Your task to perform on an android device: Open Maps and search for coffee Image 0: 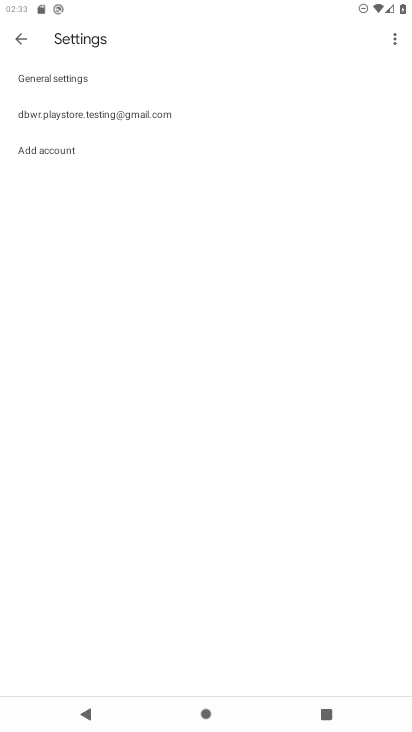
Step 0: drag from (235, 551) to (256, 403)
Your task to perform on an android device: Open Maps and search for coffee Image 1: 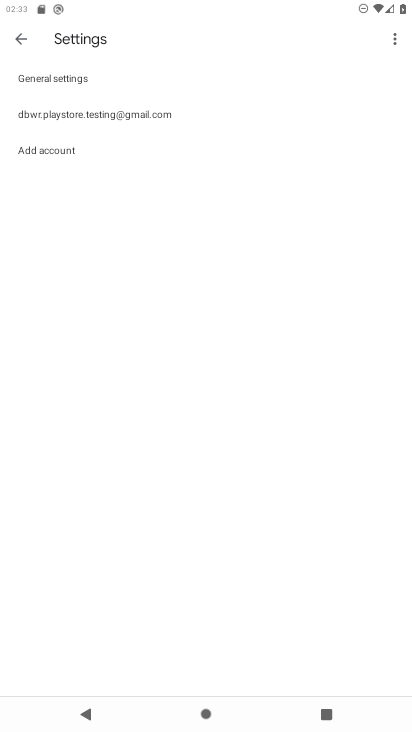
Step 1: press home button
Your task to perform on an android device: Open Maps and search for coffee Image 2: 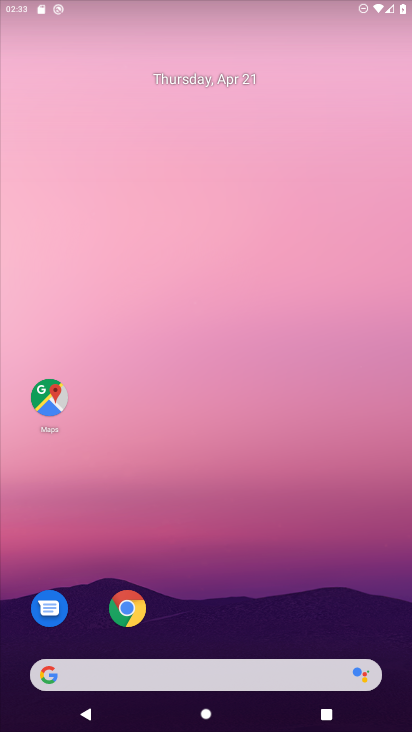
Step 2: drag from (249, 531) to (307, 190)
Your task to perform on an android device: Open Maps and search for coffee Image 3: 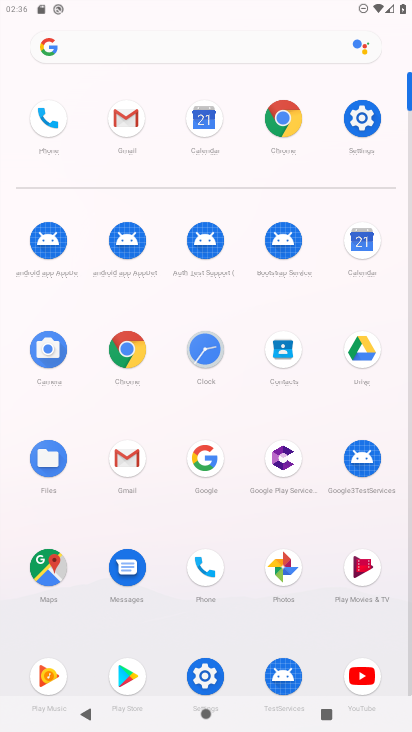
Step 3: click (42, 561)
Your task to perform on an android device: Open Maps and search for coffee Image 4: 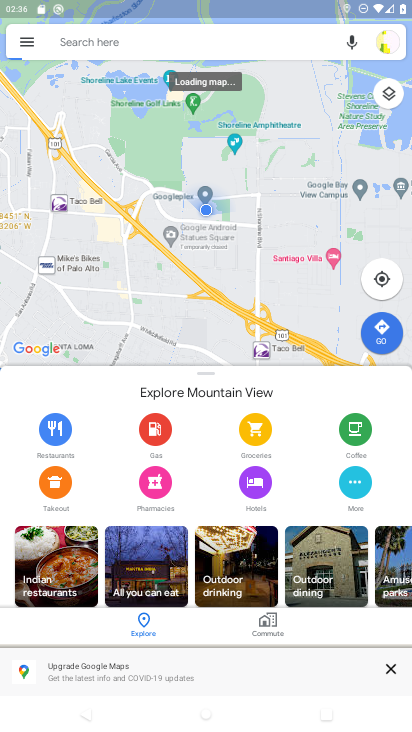
Step 4: click (187, 44)
Your task to perform on an android device: Open Maps and search for coffee Image 5: 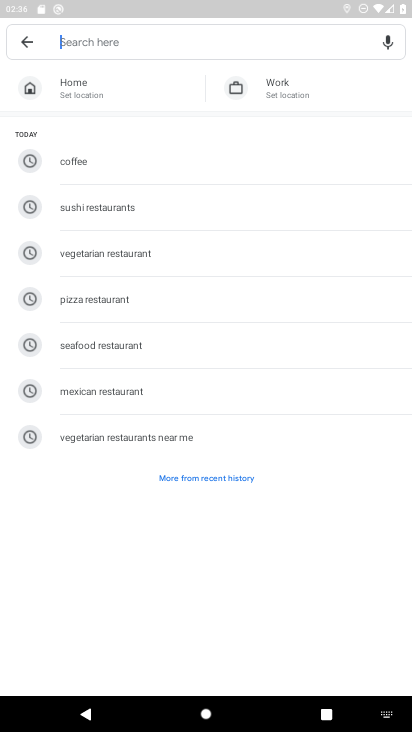
Step 5: type " coffee"
Your task to perform on an android device: Open Maps and search for coffee Image 6: 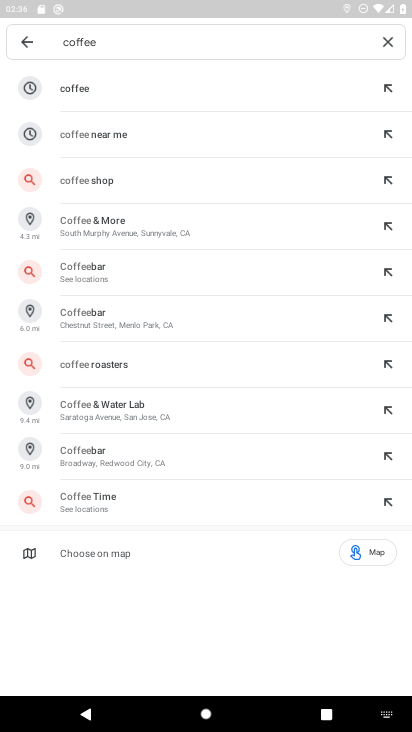
Step 6: click (125, 81)
Your task to perform on an android device: Open Maps and search for coffee Image 7: 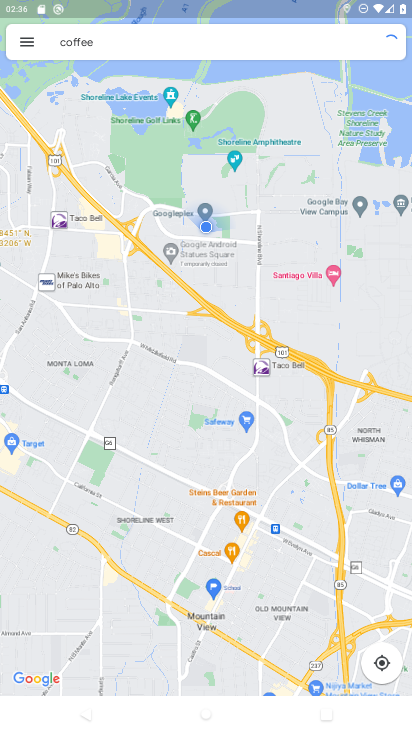
Step 7: task complete